Your task to perform on an android device: check android version Image 0: 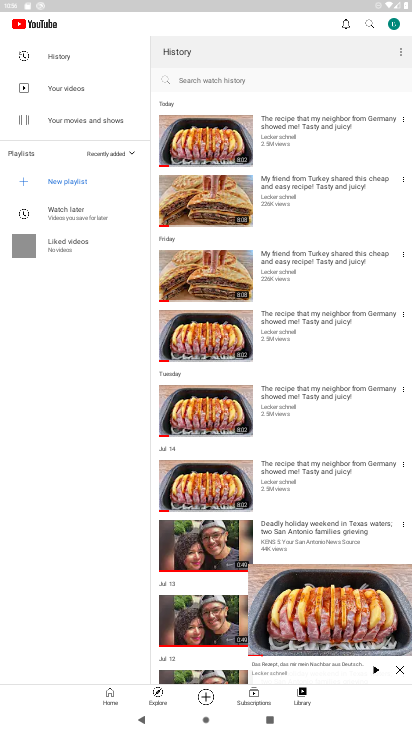
Step 0: press home button
Your task to perform on an android device: check android version Image 1: 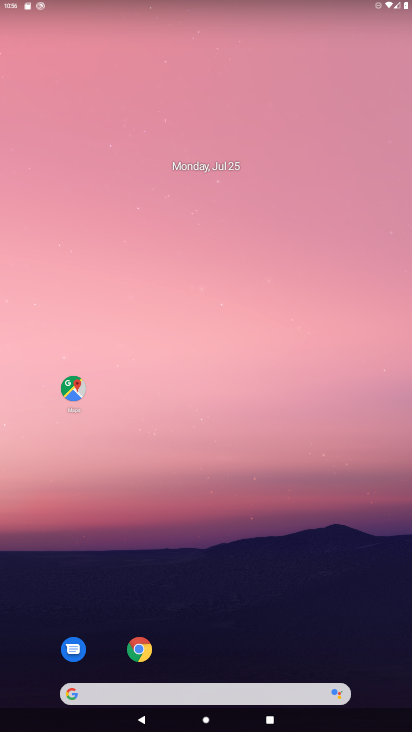
Step 1: drag from (387, 687) to (363, 208)
Your task to perform on an android device: check android version Image 2: 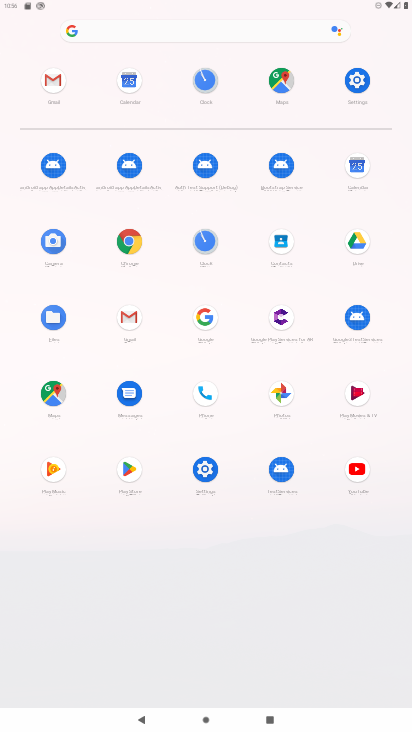
Step 2: click (204, 469)
Your task to perform on an android device: check android version Image 3: 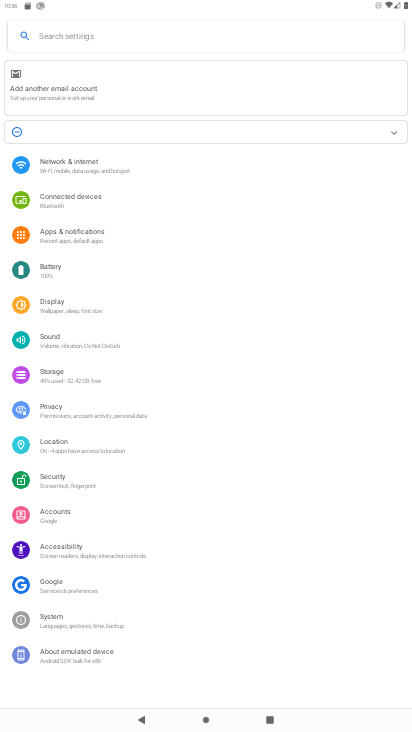
Step 3: click (62, 656)
Your task to perform on an android device: check android version Image 4: 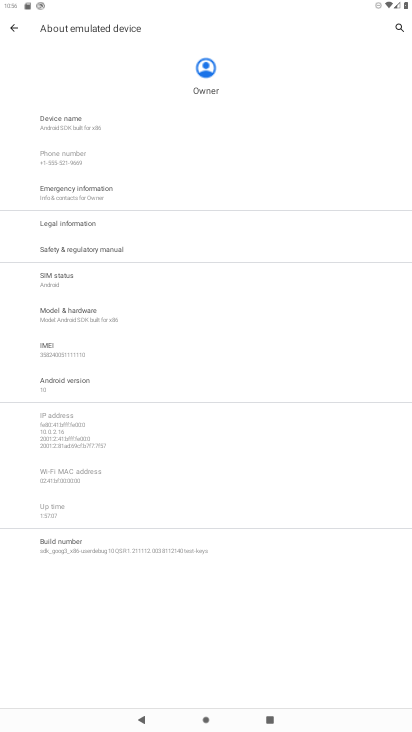
Step 4: click (55, 383)
Your task to perform on an android device: check android version Image 5: 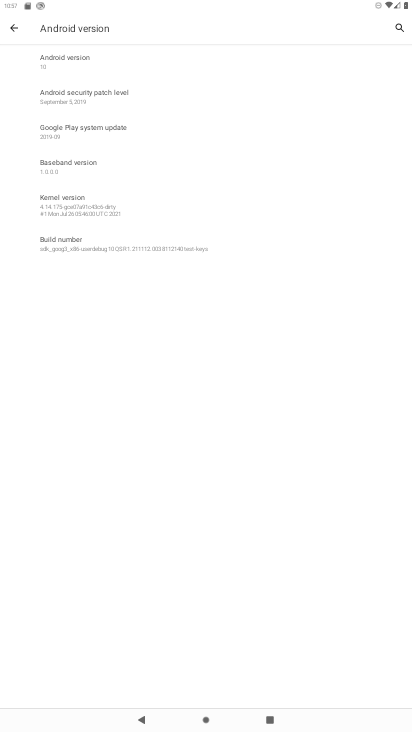
Step 5: task complete